Your task to perform on an android device: change the clock display to analog Image 0: 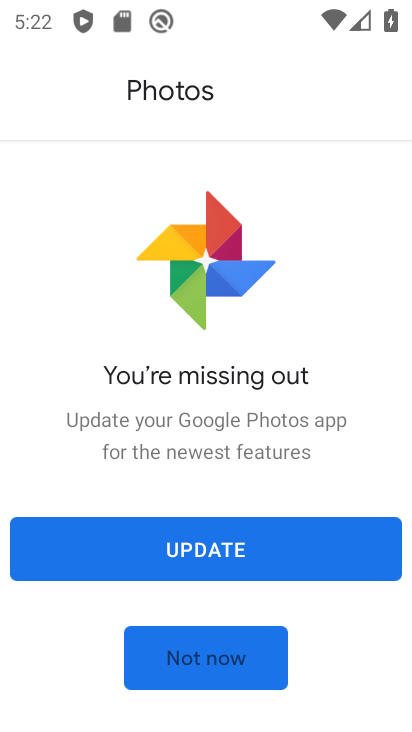
Step 0: press home button
Your task to perform on an android device: change the clock display to analog Image 1: 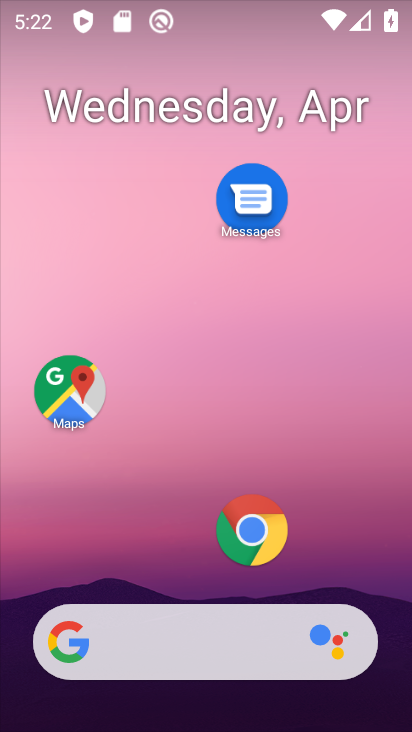
Step 1: drag from (170, 567) to (198, 16)
Your task to perform on an android device: change the clock display to analog Image 2: 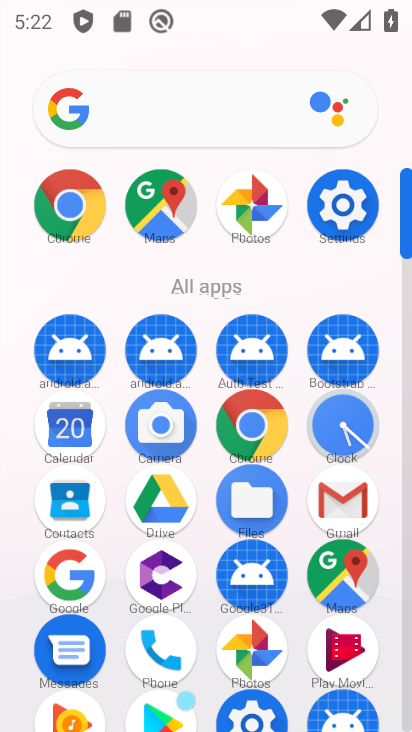
Step 2: click (345, 424)
Your task to perform on an android device: change the clock display to analog Image 3: 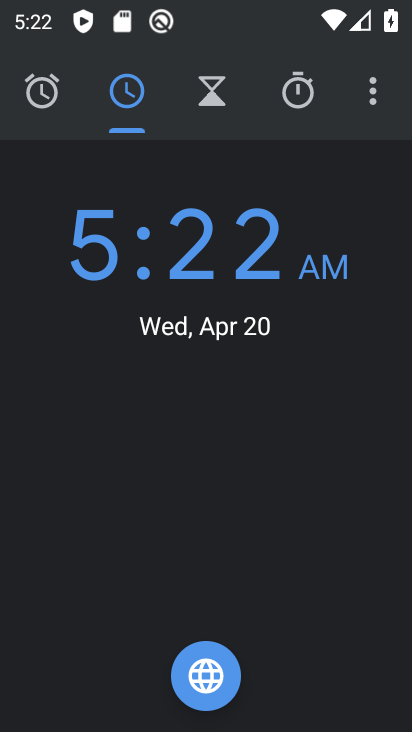
Step 3: click (373, 94)
Your task to perform on an android device: change the clock display to analog Image 4: 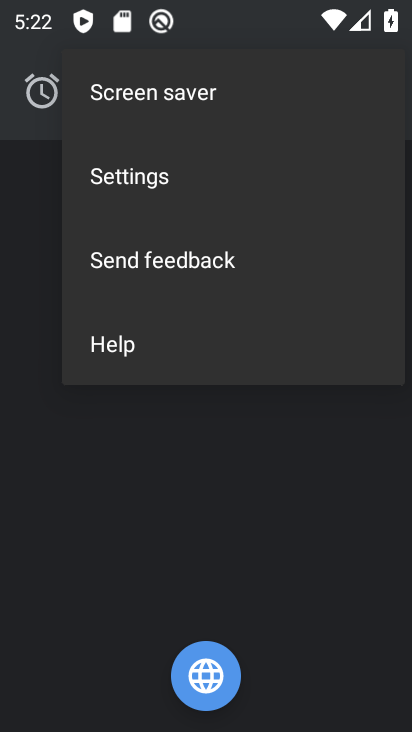
Step 4: click (175, 182)
Your task to perform on an android device: change the clock display to analog Image 5: 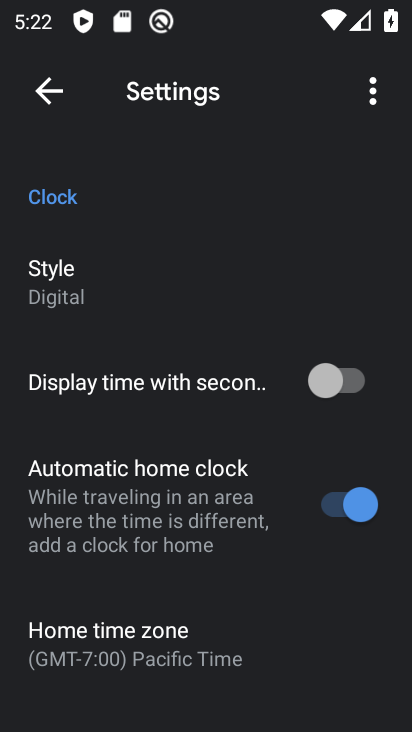
Step 5: click (117, 273)
Your task to perform on an android device: change the clock display to analog Image 6: 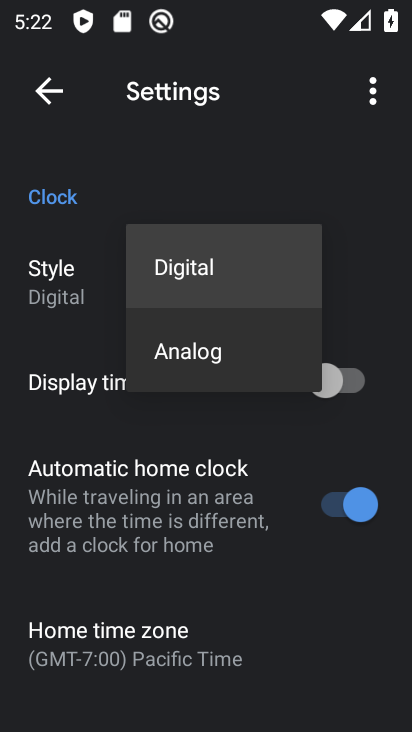
Step 6: click (181, 342)
Your task to perform on an android device: change the clock display to analog Image 7: 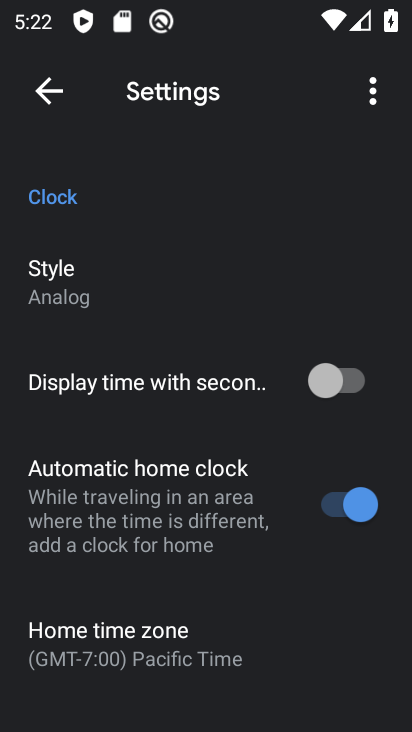
Step 7: task complete